Your task to perform on an android device: change keyboard looks Image 0: 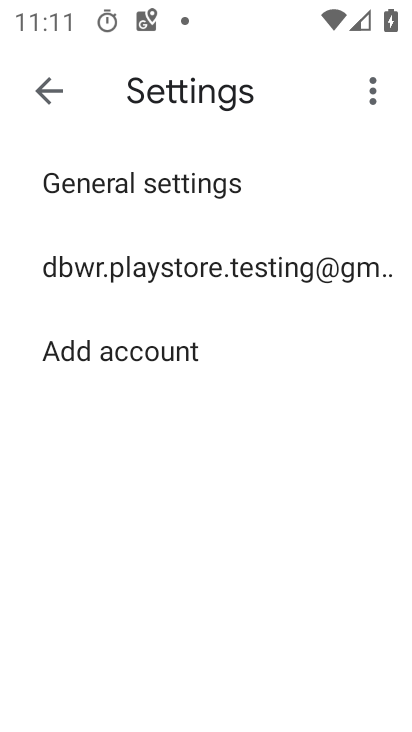
Step 0: press home button
Your task to perform on an android device: change keyboard looks Image 1: 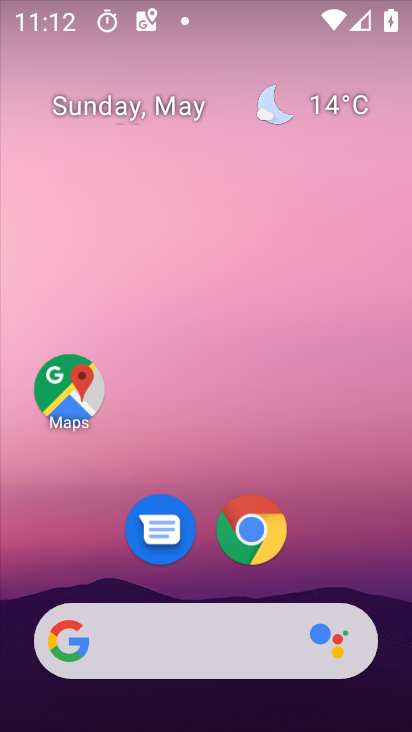
Step 1: drag from (244, 606) to (312, 51)
Your task to perform on an android device: change keyboard looks Image 2: 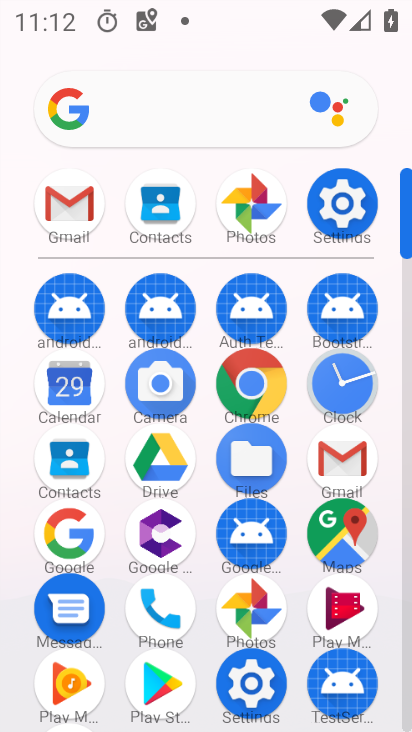
Step 2: click (243, 687)
Your task to perform on an android device: change keyboard looks Image 3: 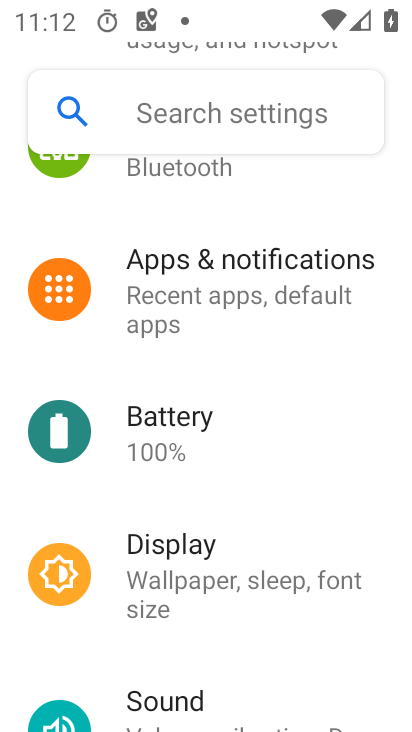
Step 3: drag from (265, 638) to (200, 3)
Your task to perform on an android device: change keyboard looks Image 4: 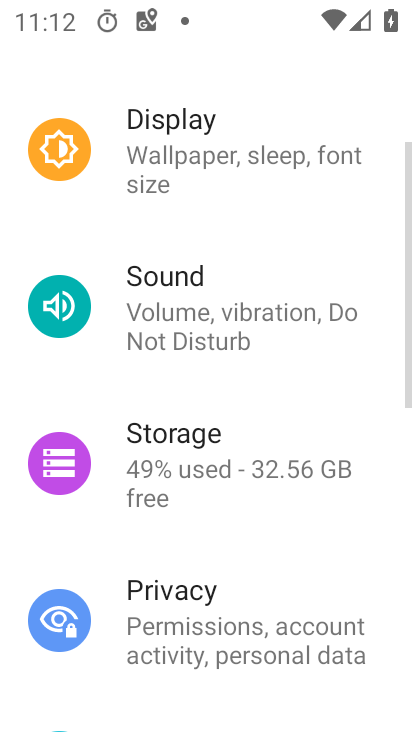
Step 4: drag from (249, 642) to (271, 46)
Your task to perform on an android device: change keyboard looks Image 5: 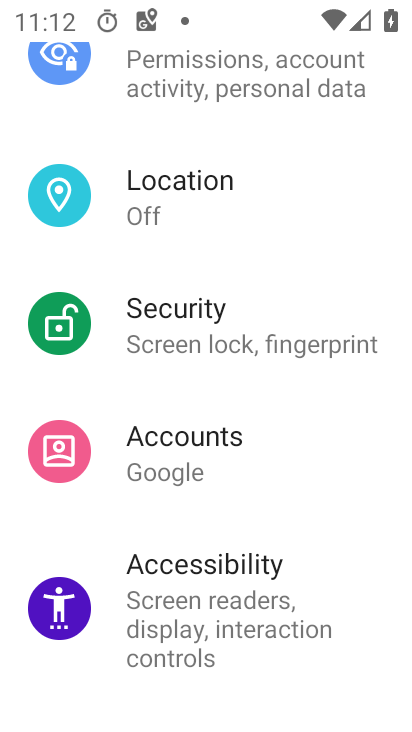
Step 5: drag from (196, 663) to (230, 205)
Your task to perform on an android device: change keyboard looks Image 6: 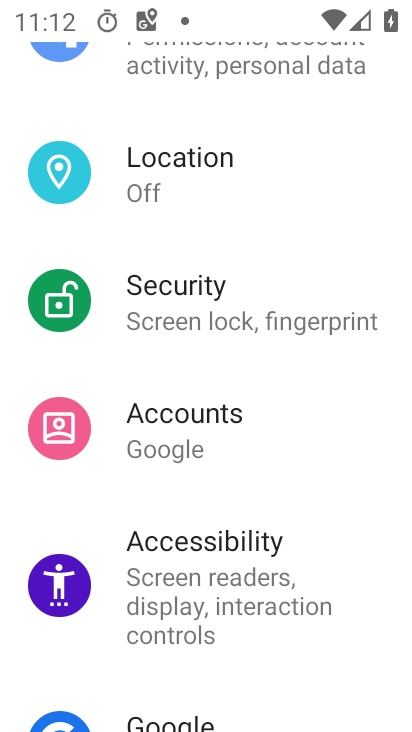
Step 6: drag from (262, 618) to (285, 151)
Your task to perform on an android device: change keyboard looks Image 7: 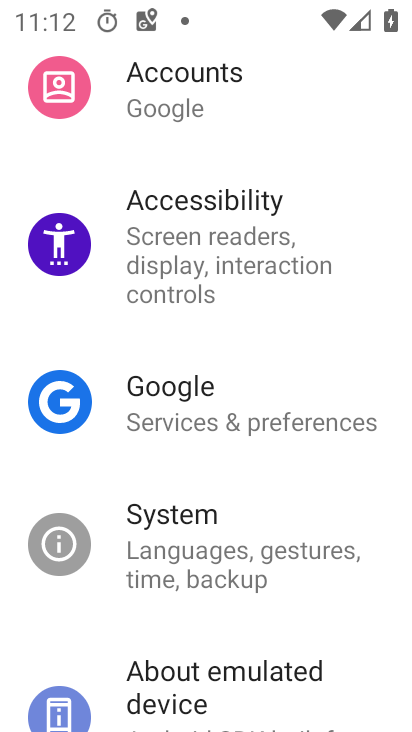
Step 7: click (264, 584)
Your task to perform on an android device: change keyboard looks Image 8: 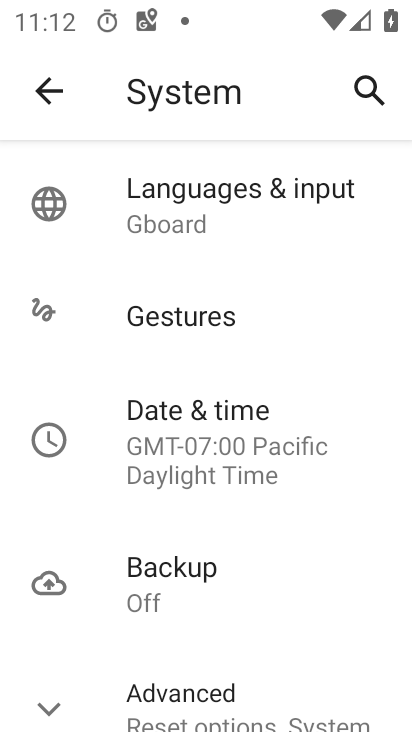
Step 8: click (218, 217)
Your task to perform on an android device: change keyboard looks Image 9: 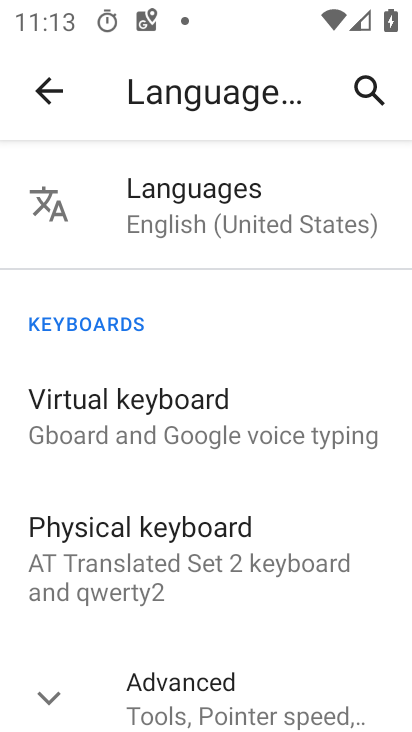
Step 9: click (136, 440)
Your task to perform on an android device: change keyboard looks Image 10: 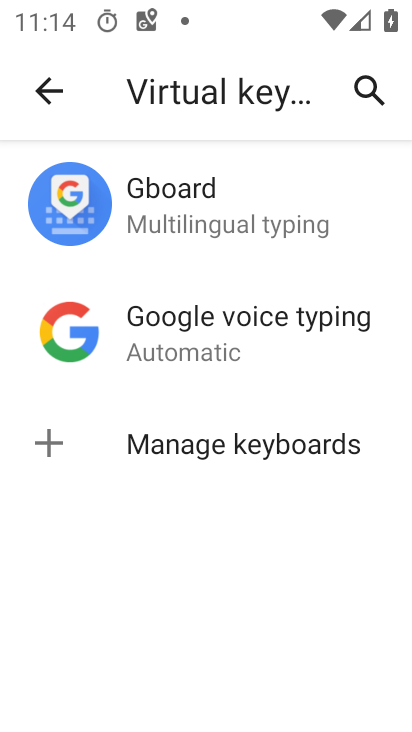
Step 10: click (179, 222)
Your task to perform on an android device: change keyboard looks Image 11: 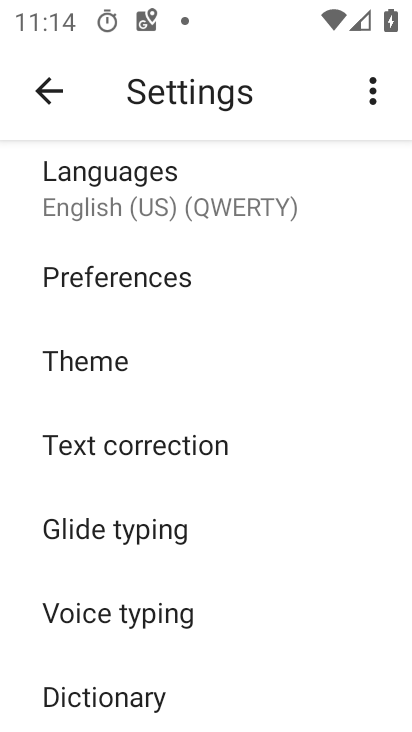
Step 11: click (133, 347)
Your task to perform on an android device: change keyboard looks Image 12: 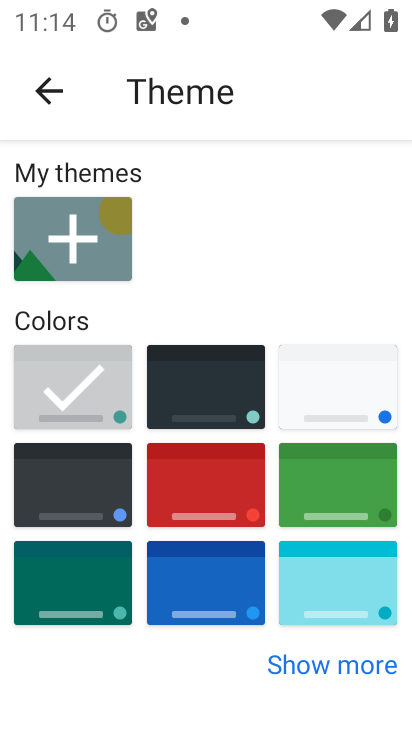
Step 12: click (233, 534)
Your task to perform on an android device: change keyboard looks Image 13: 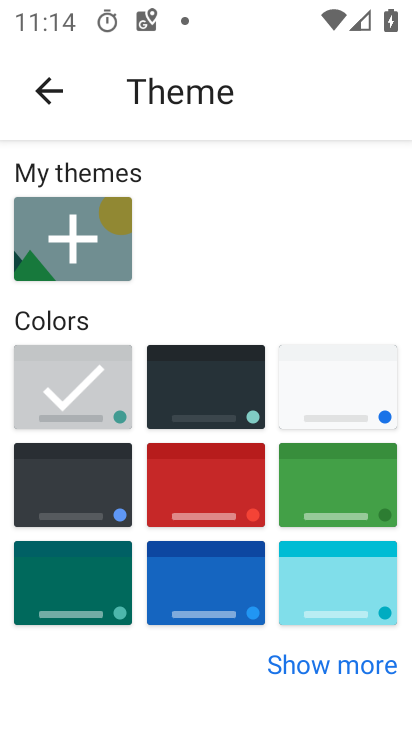
Step 13: click (214, 580)
Your task to perform on an android device: change keyboard looks Image 14: 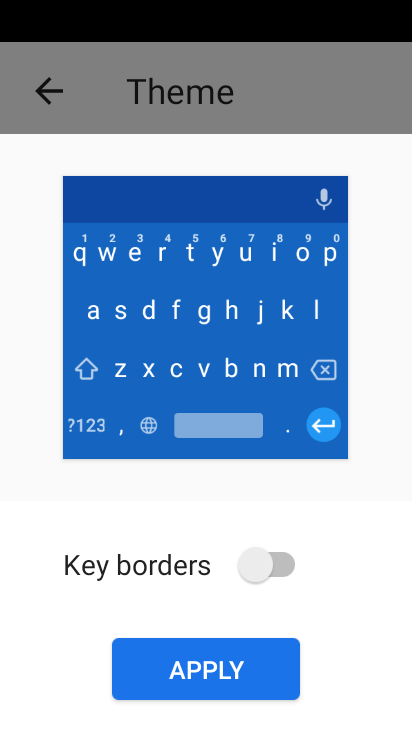
Step 14: click (230, 674)
Your task to perform on an android device: change keyboard looks Image 15: 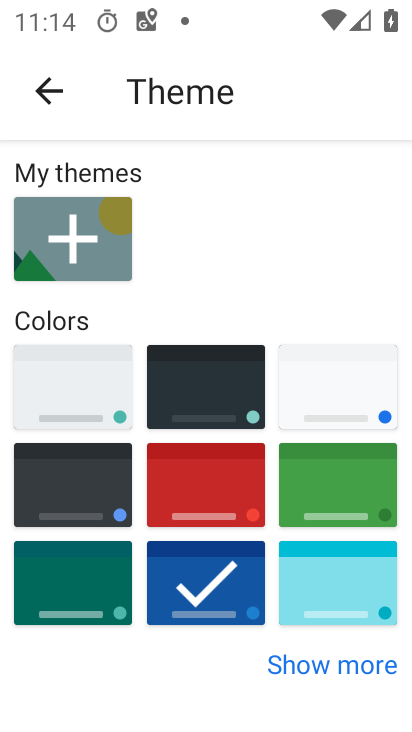
Step 15: task complete